Your task to perform on an android device: Open calendar and show me the third week of next month Image 0: 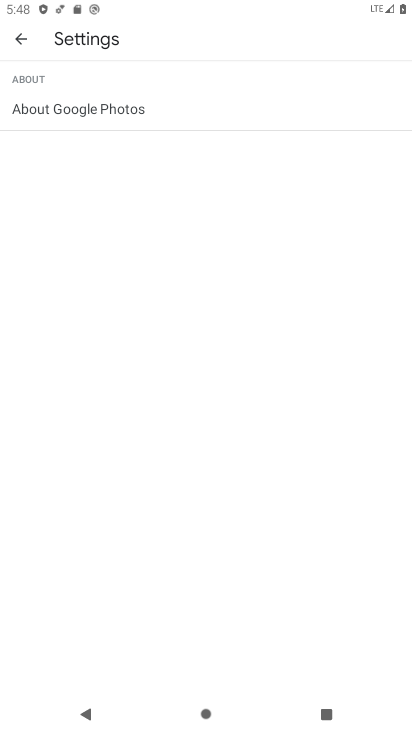
Step 0: drag from (290, 617) to (310, 205)
Your task to perform on an android device: Open calendar and show me the third week of next month Image 1: 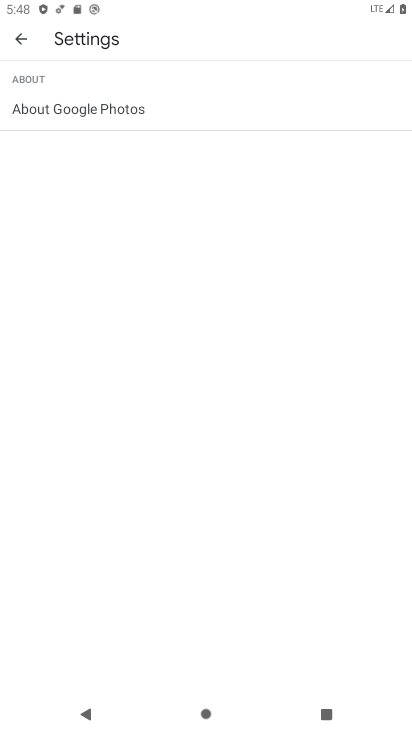
Step 1: press home button
Your task to perform on an android device: Open calendar and show me the third week of next month Image 2: 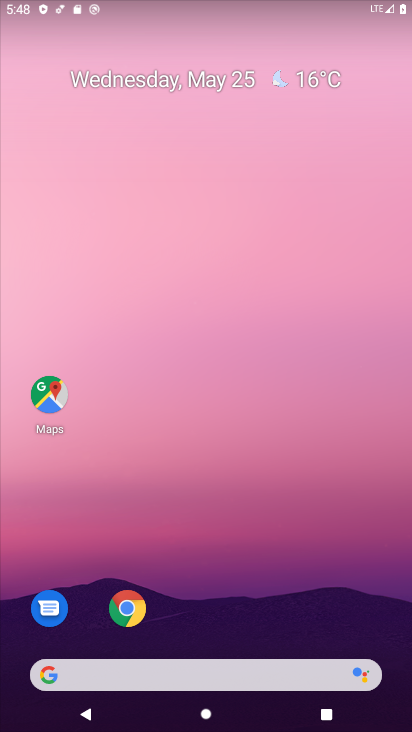
Step 2: drag from (188, 619) to (228, 91)
Your task to perform on an android device: Open calendar and show me the third week of next month Image 3: 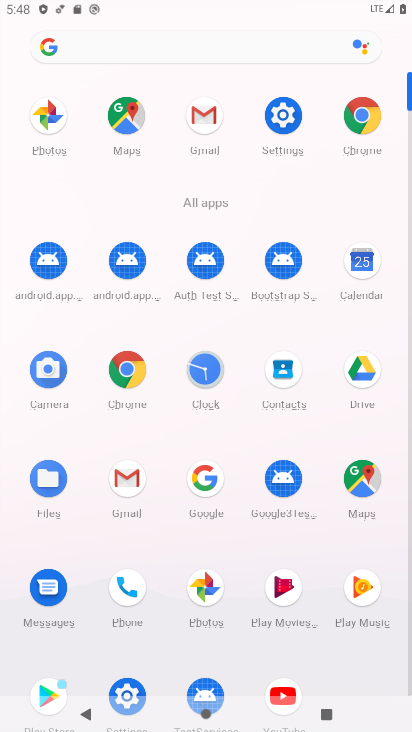
Step 3: click (359, 263)
Your task to perform on an android device: Open calendar and show me the third week of next month Image 4: 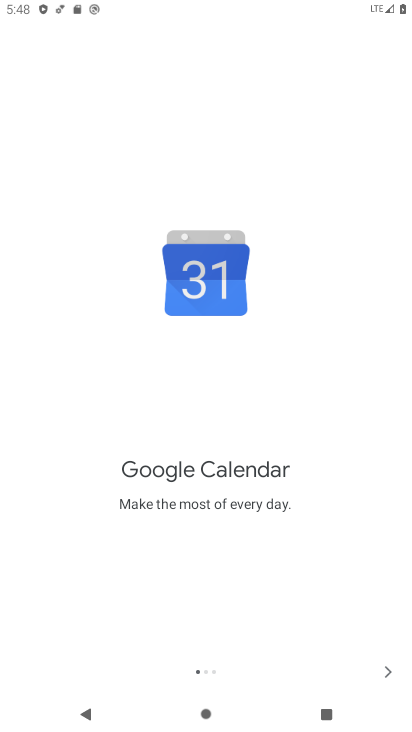
Step 4: click (395, 674)
Your task to perform on an android device: Open calendar and show me the third week of next month Image 5: 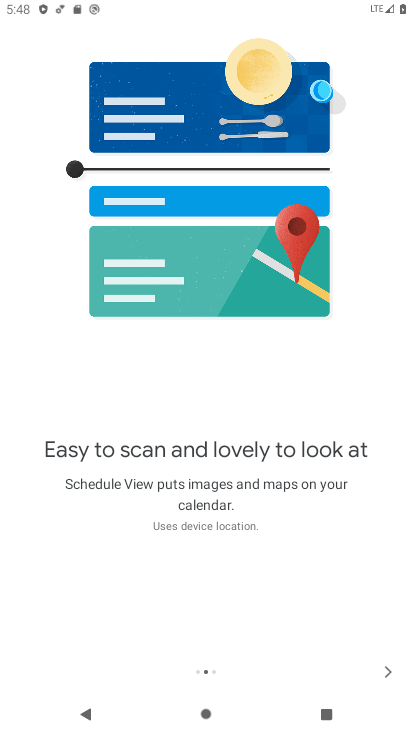
Step 5: click (395, 674)
Your task to perform on an android device: Open calendar and show me the third week of next month Image 6: 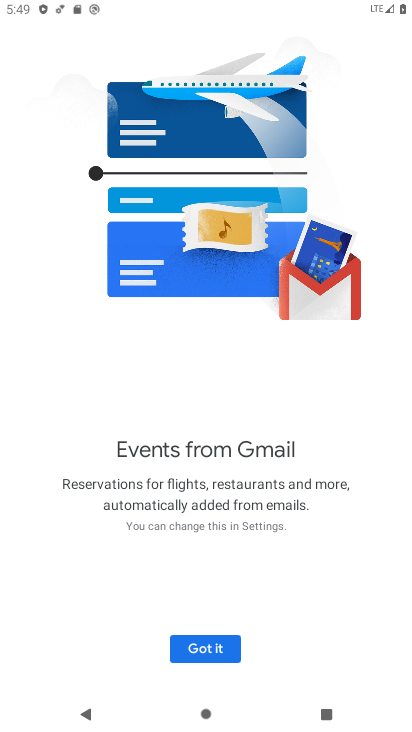
Step 6: click (223, 643)
Your task to perform on an android device: Open calendar and show me the third week of next month Image 7: 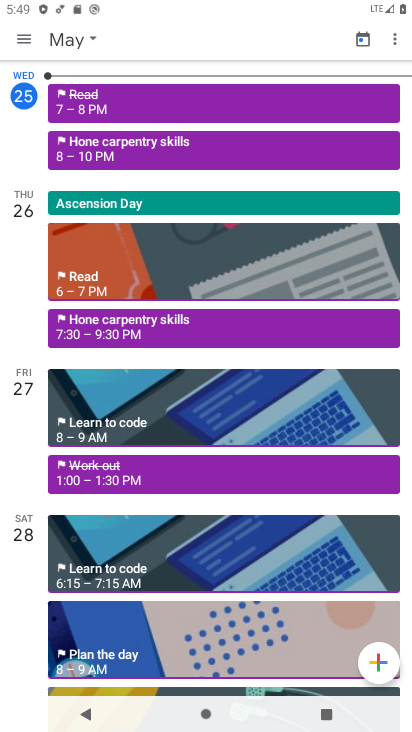
Step 7: click (100, 39)
Your task to perform on an android device: Open calendar and show me the third week of next month Image 8: 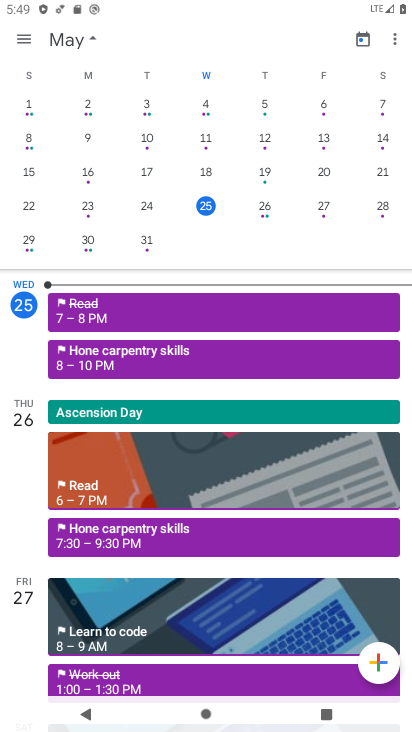
Step 8: drag from (335, 197) to (0, 184)
Your task to perform on an android device: Open calendar and show me the third week of next month Image 9: 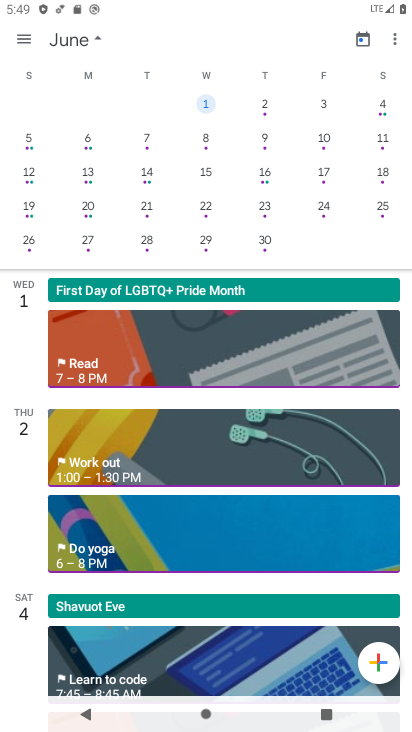
Step 9: click (267, 173)
Your task to perform on an android device: Open calendar and show me the third week of next month Image 10: 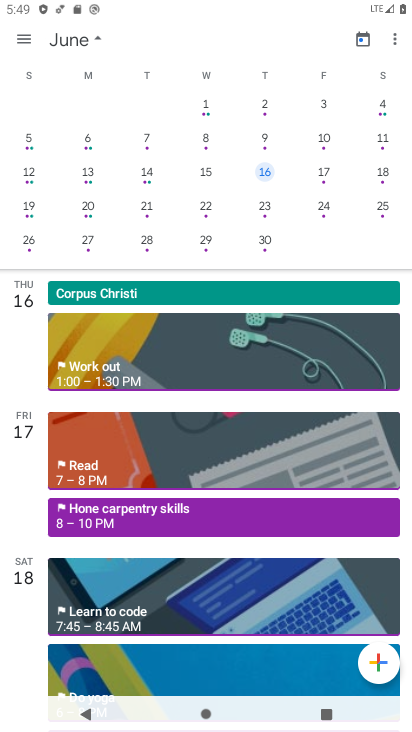
Step 10: task complete